Your task to perform on an android device: visit the assistant section in the google photos Image 0: 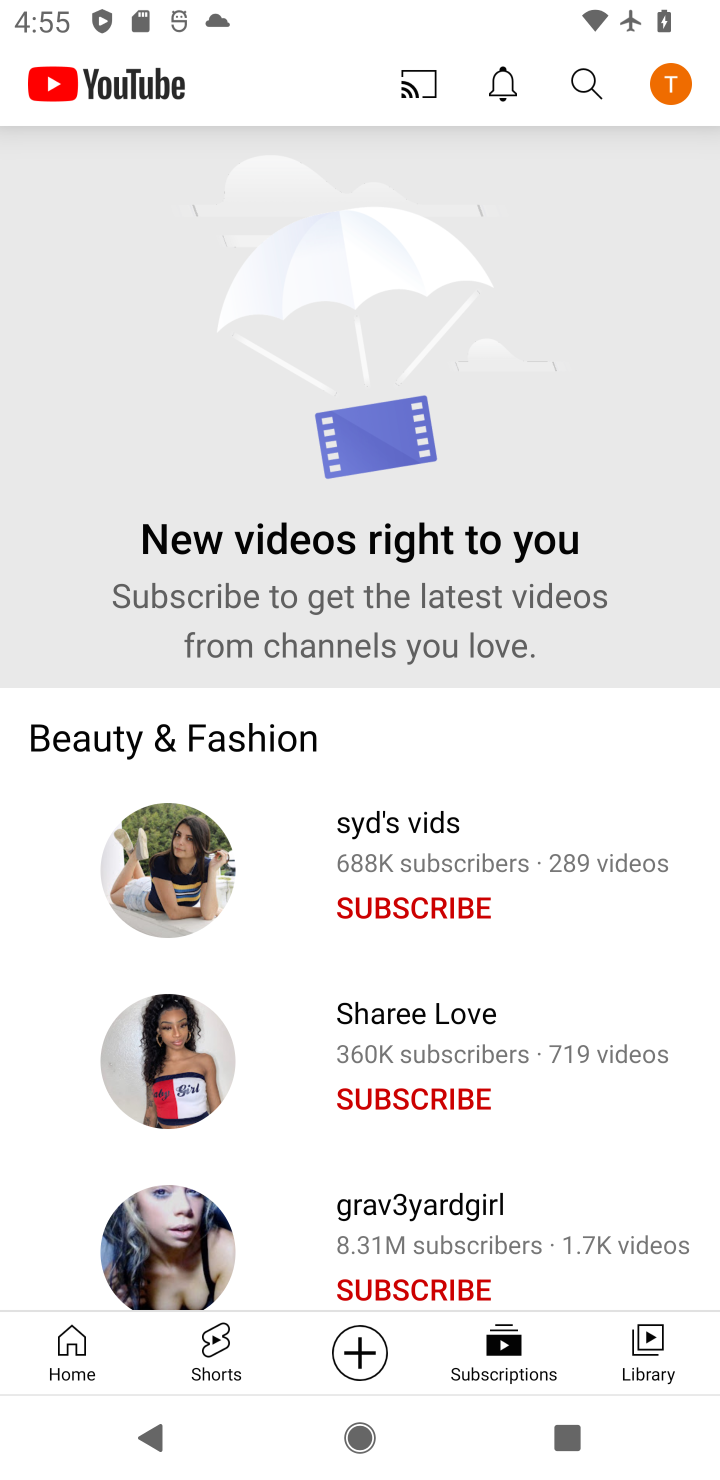
Step 0: press home button
Your task to perform on an android device: visit the assistant section in the google photos Image 1: 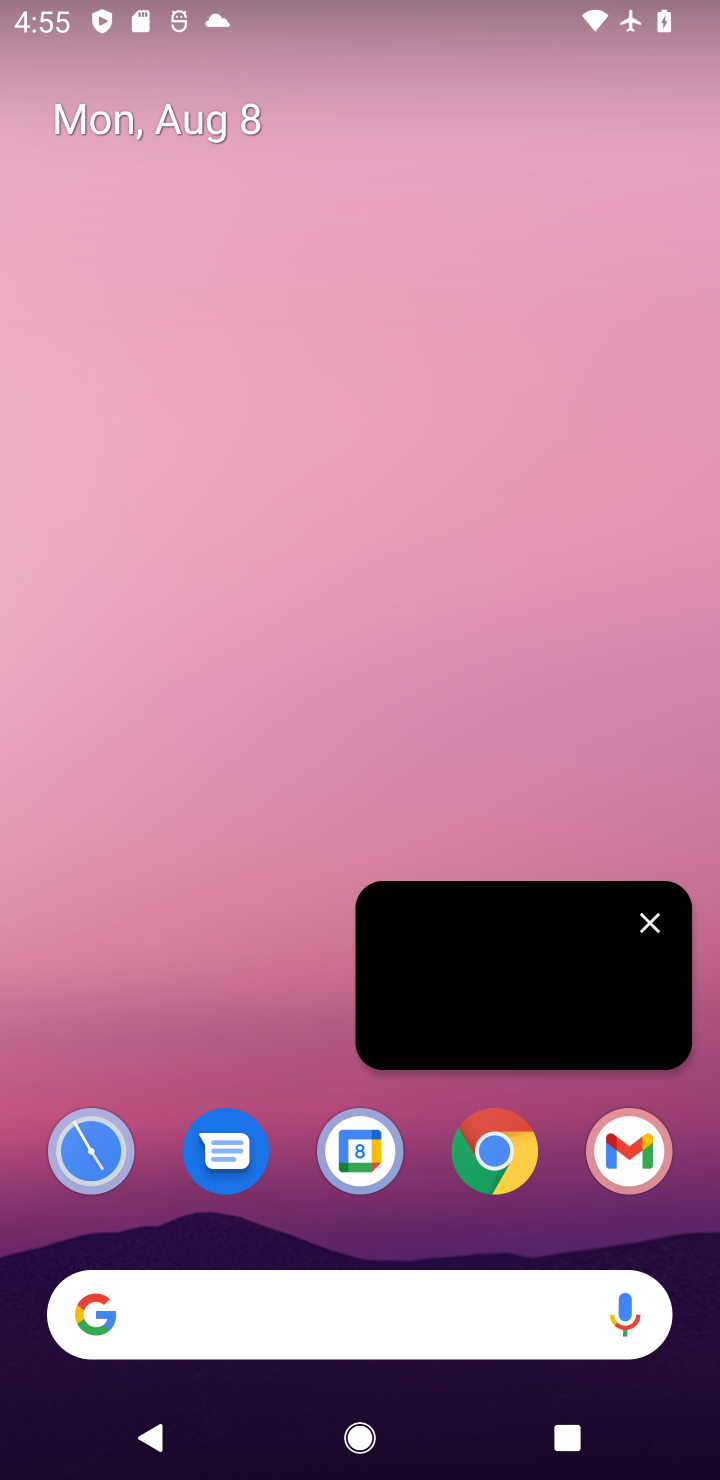
Step 1: click (648, 930)
Your task to perform on an android device: visit the assistant section in the google photos Image 2: 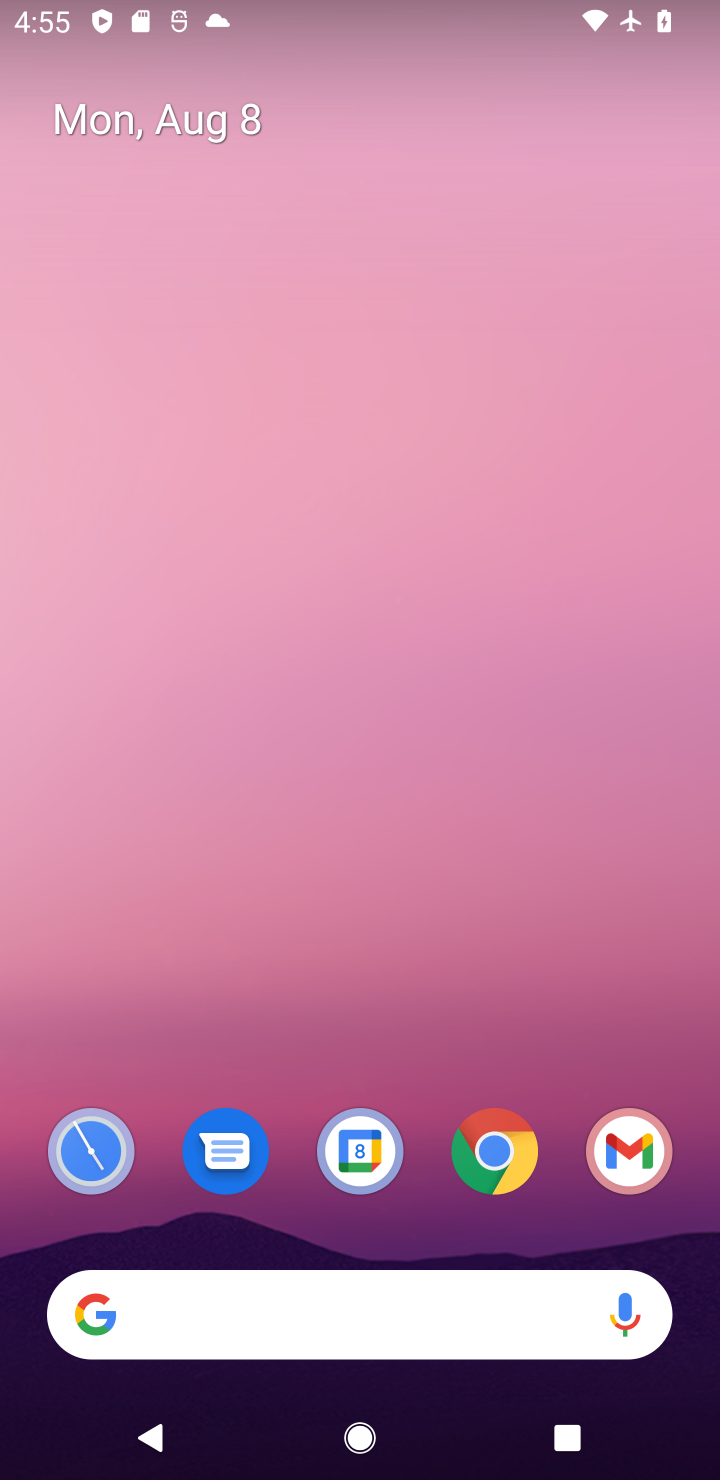
Step 2: drag from (325, 1037) to (299, 273)
Your task to perform on an android device: visit the assistant section in the google photos Image 3: 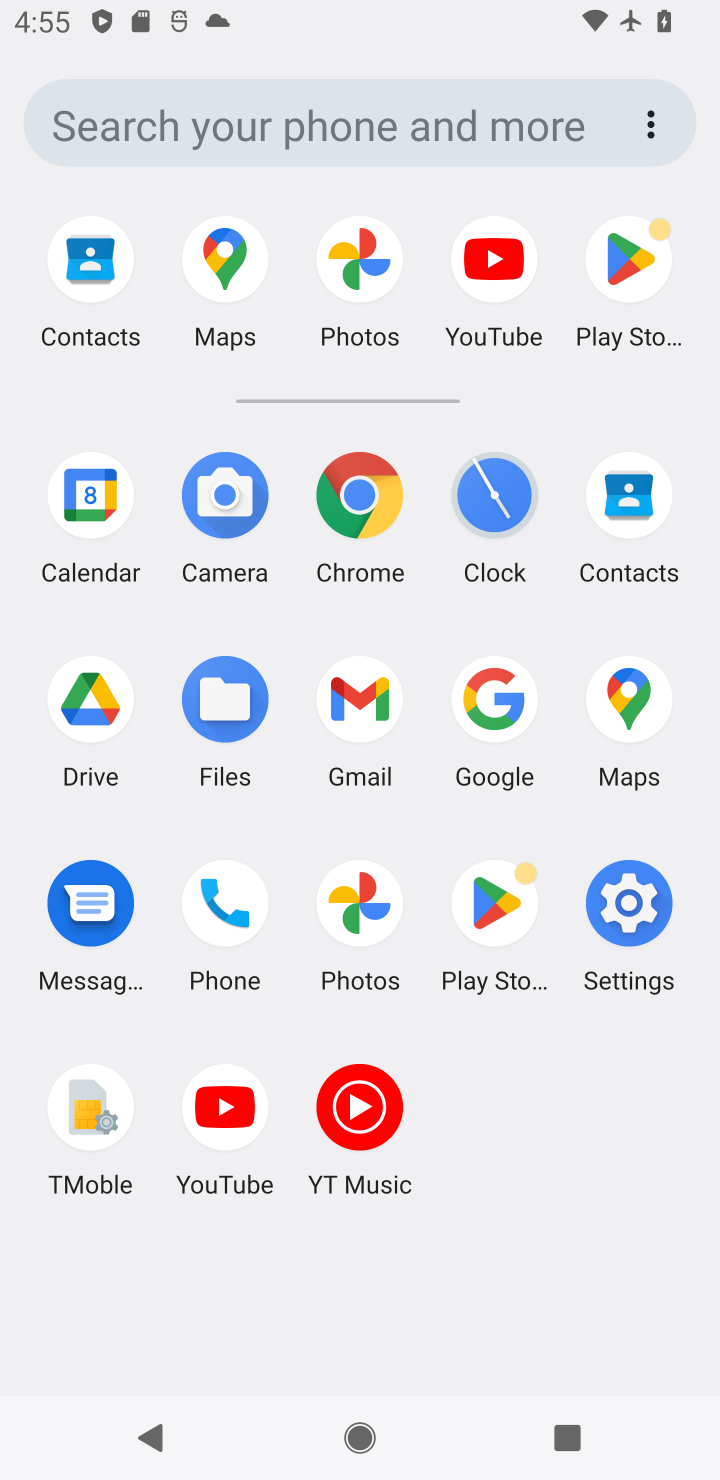
Step 3: click (365, 315)
Your task to perform on an android device: visit the assistant section in the google photos Image 4: 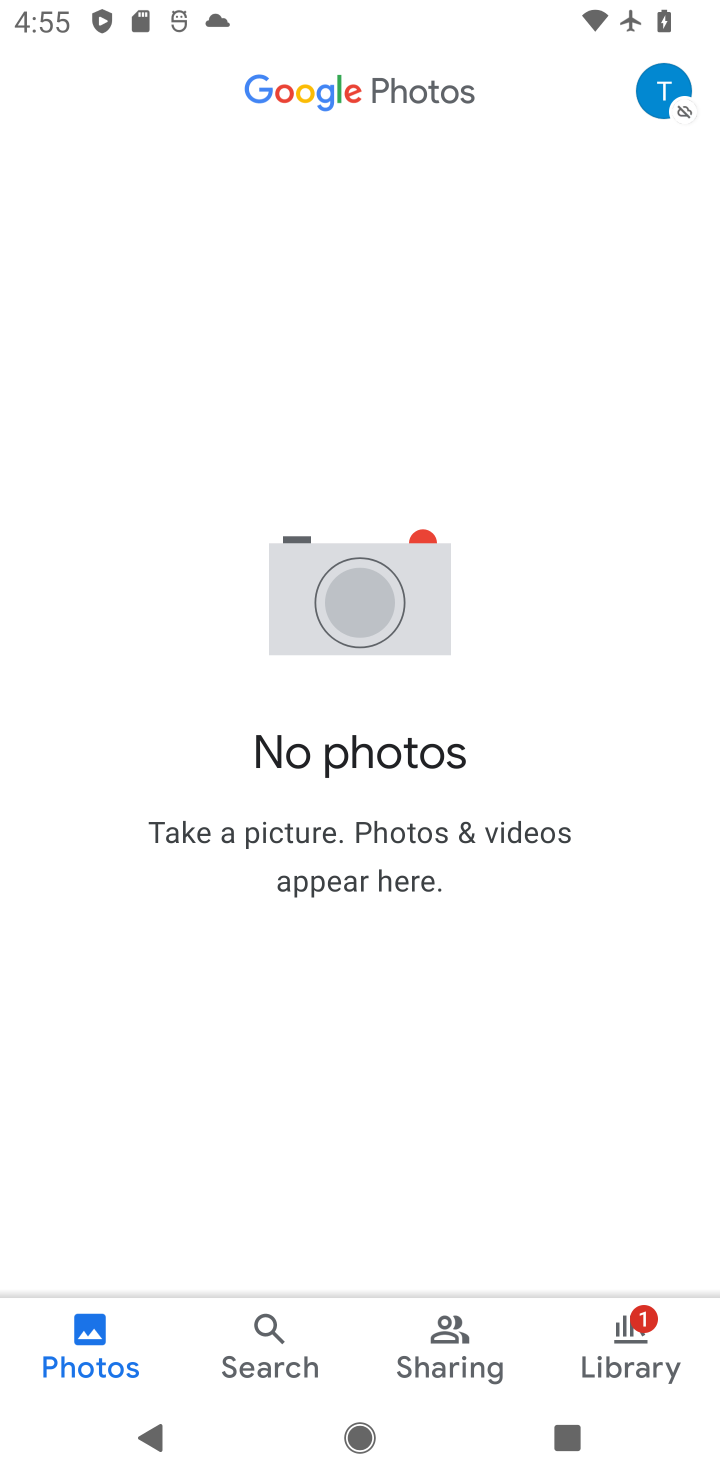
Step 4: click (676, 103)
Your task to perform on an android device: visit the assistant section in the google photos Image 5: 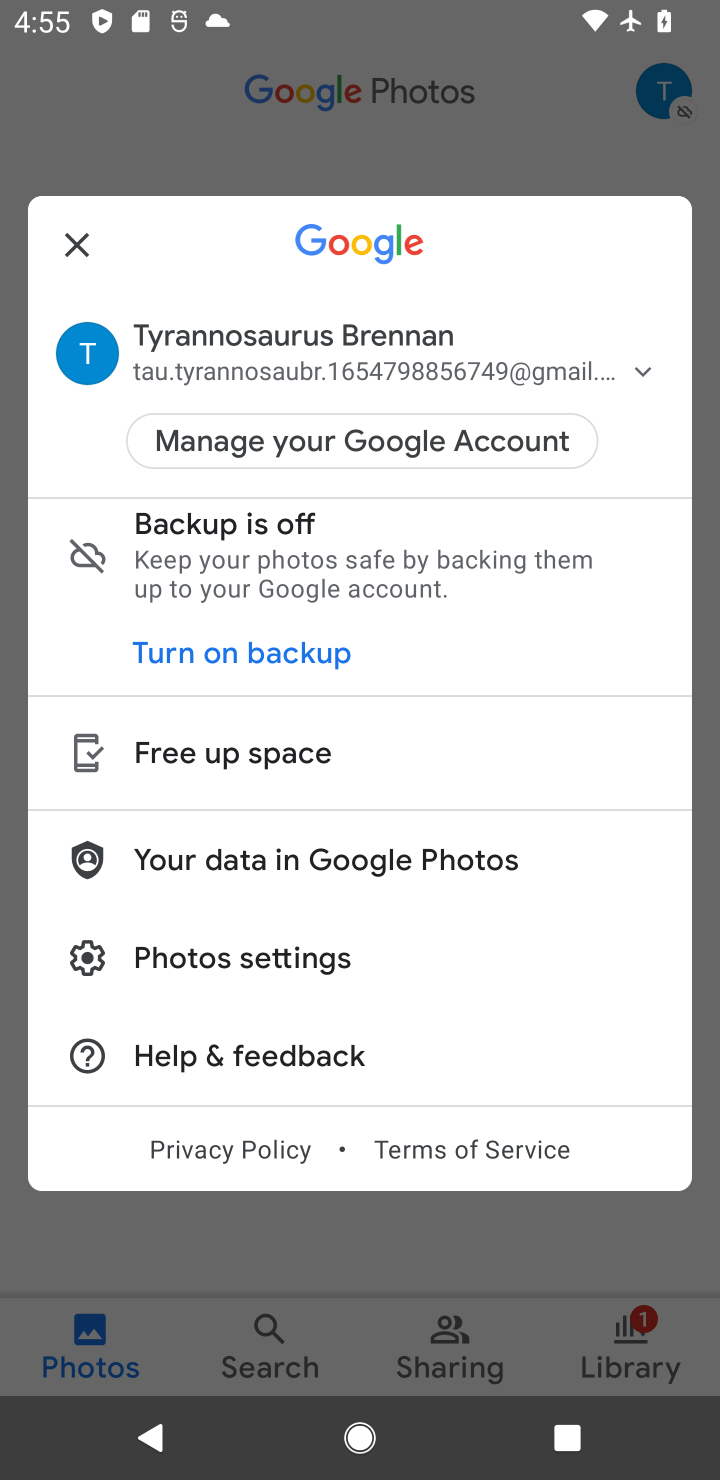
Step 5: drag from (430, 944) to (401, 433)
Your task to perform on an android device: visit the assistant section in the google photos Image 6: 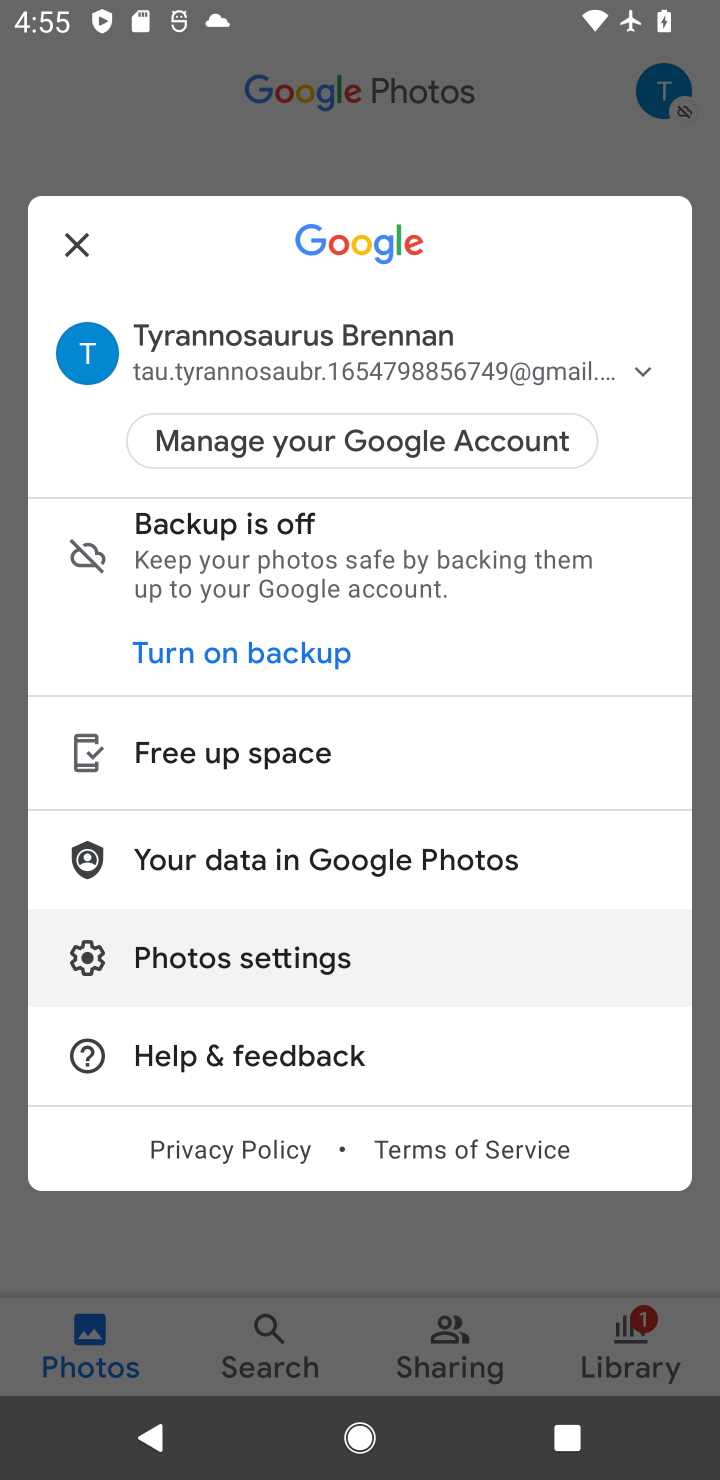
Step 6: click (79, 236)
Your task to perform on an android device: visit the assistant section in the google photos Image 7: 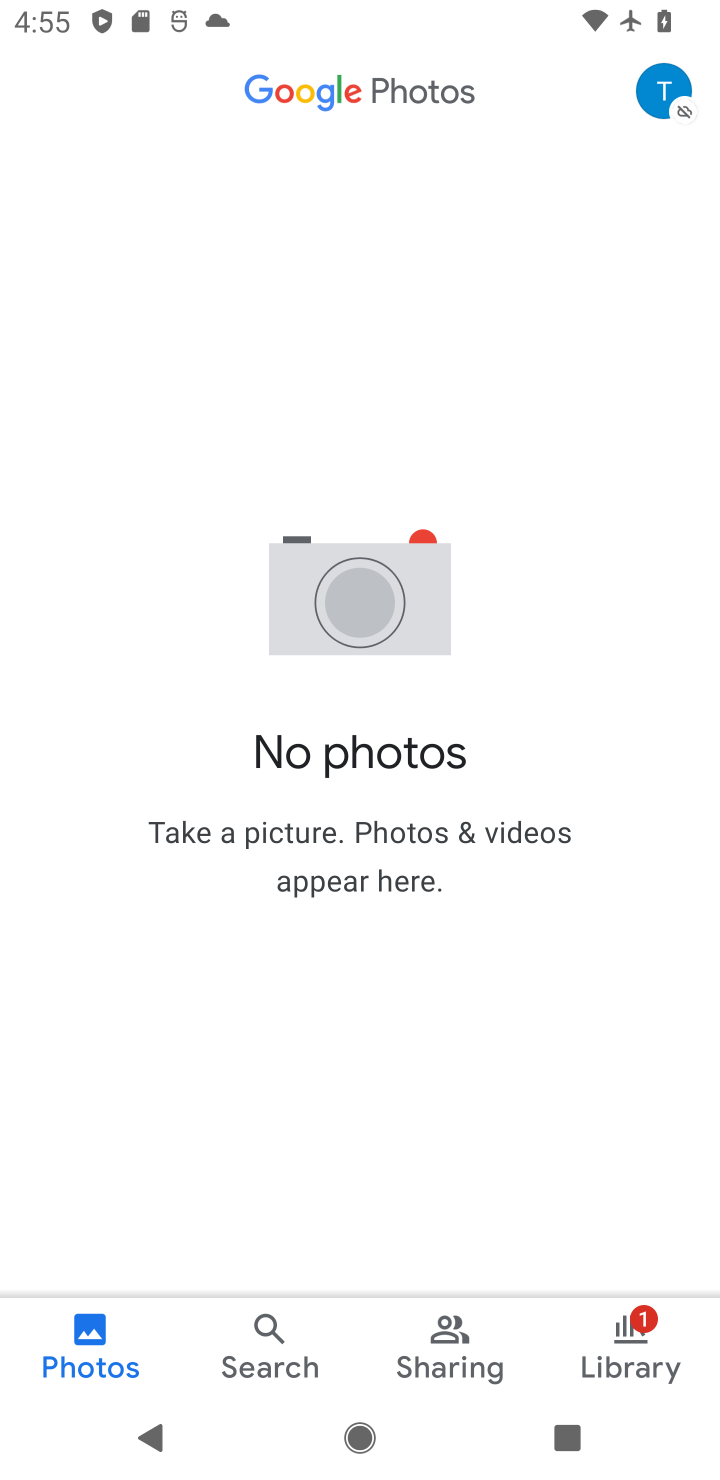
Step 7: click (457, 1336)
Your task to perform on an android device: visit the assistant section in the google photos Image 8: 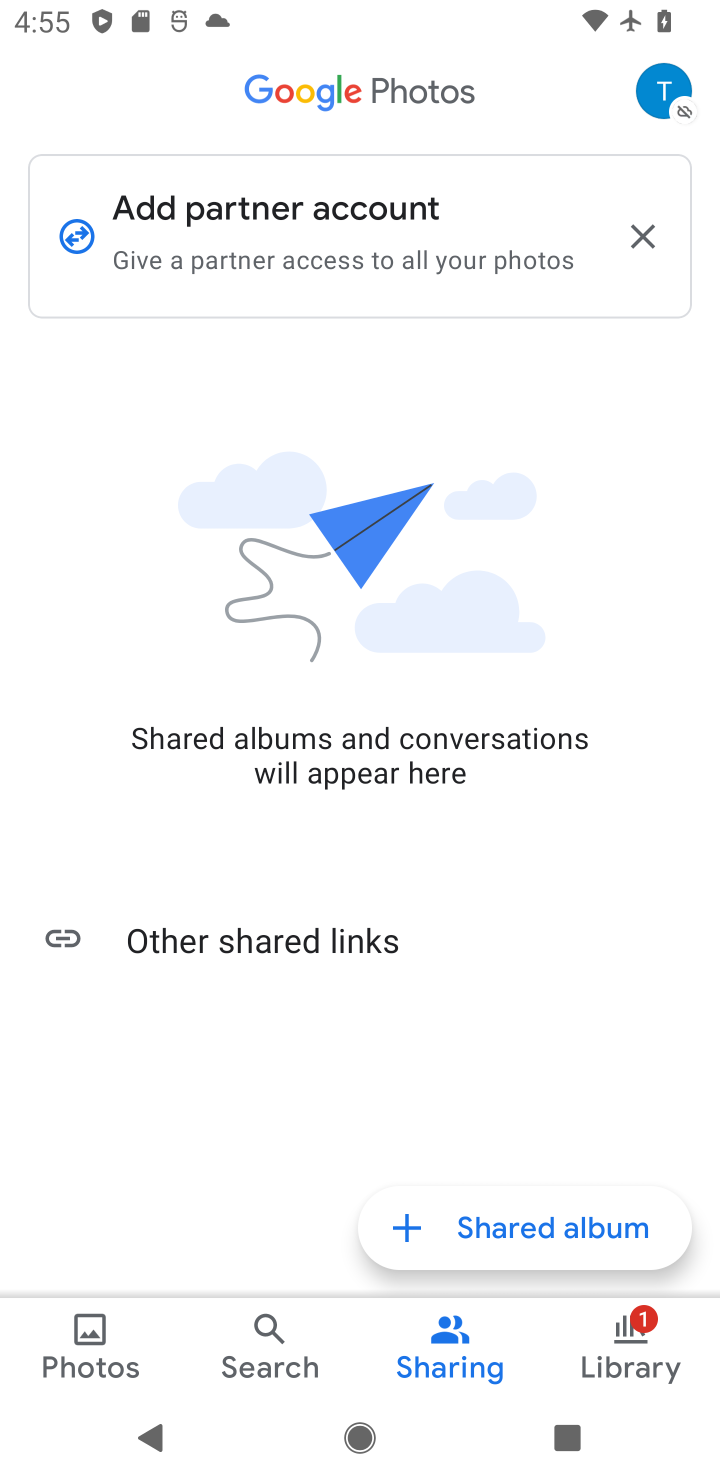
Step 8: click (602, 1330)
Your task to perform on an android device: visit the assistant section in the google photos Image 9: 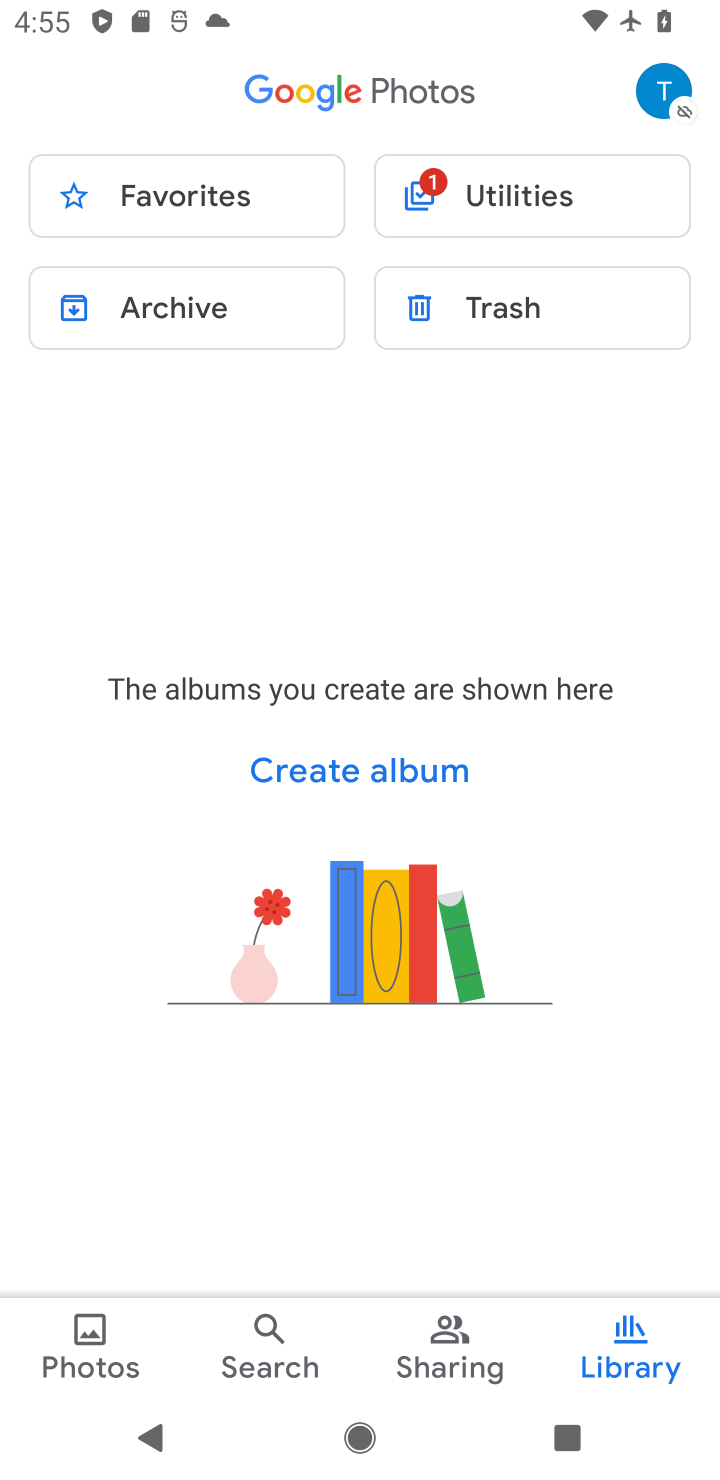
Step 9: task complete